Your task to perform on an android device: turn notification dots off Image 0: 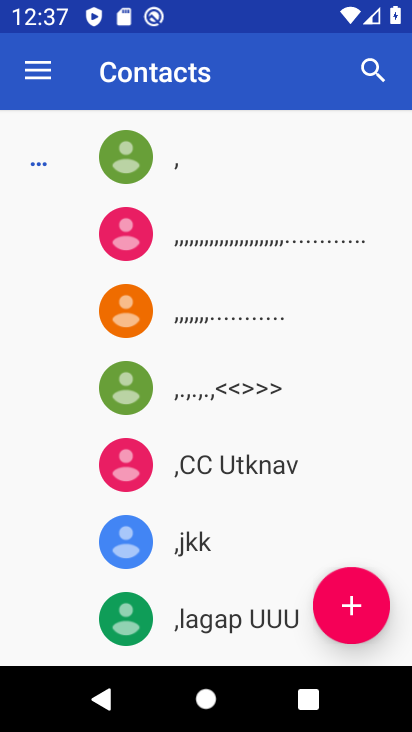
Step 0: press home button
Your task to perform on an android device: turn notification dots off Image 1: 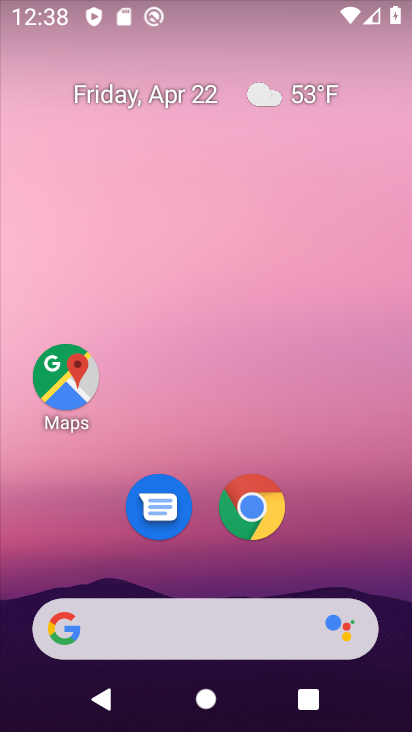
Step 1: drag from (260, 593) to (302, 264)
Your task to perform on an android device: turn notification dots off Image 2: 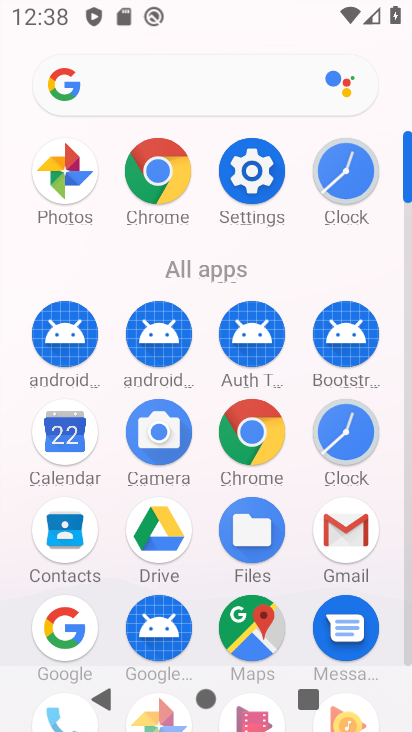
Step 2: click (251, 174)
Your task to perform on an android device: turn notification dots off Image 3: 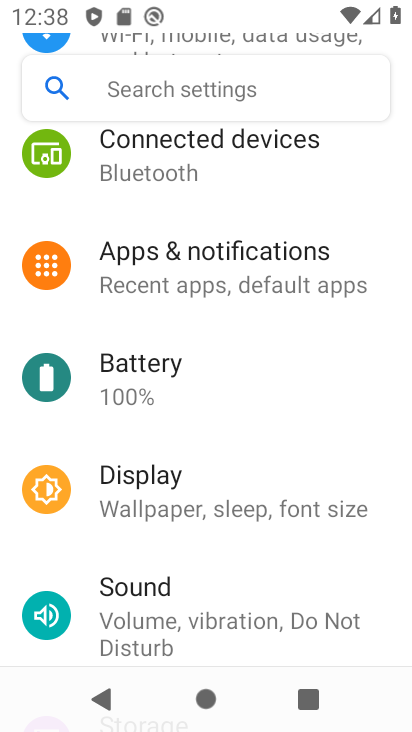
Step 3: click (255, 264)
Your task to perform on an android device: turn notification dots off Image 4: 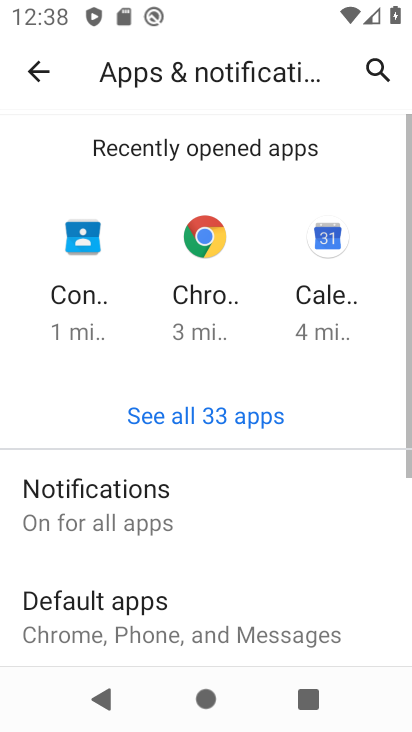
Step 4: click (165, 516)
Your task to perform on an android device: turn notification dots off Image 5: 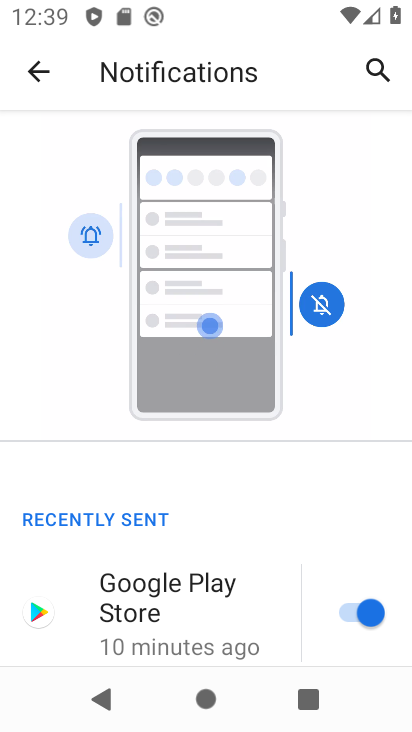
Step 5: drag from (188, 631) to (243, 254)
Your task to perform on an android device: turn notification dots off Image 6: 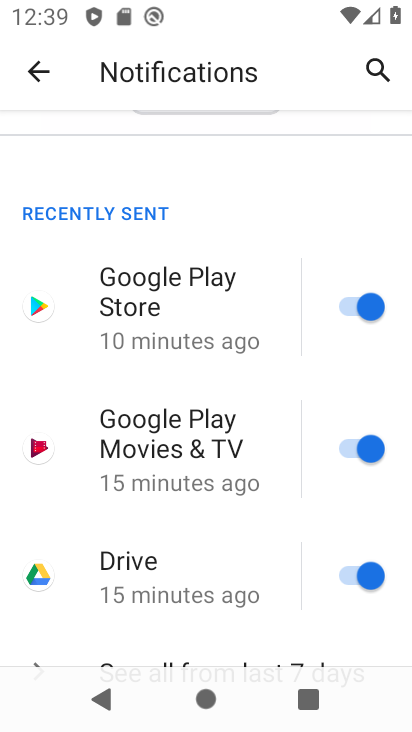
Step 6: drag from (233, 527) to (247, 216)
Your task to perform on an android device: turn notification dots off Image 7: 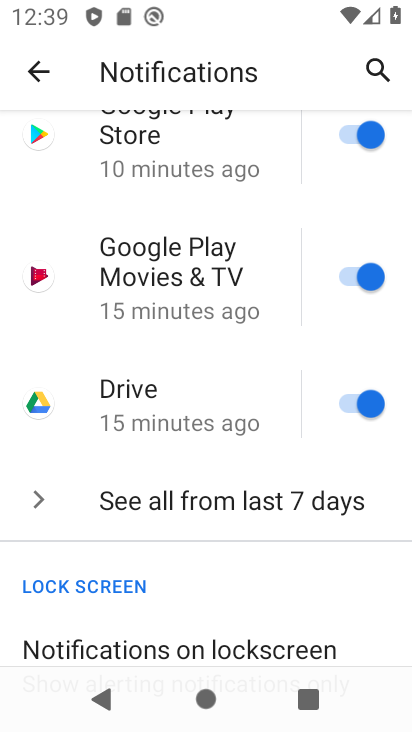
Step 7: drag from (215, 589) to (240, 186)
Your task to perform on an android device: turn notification dots off Image 8: 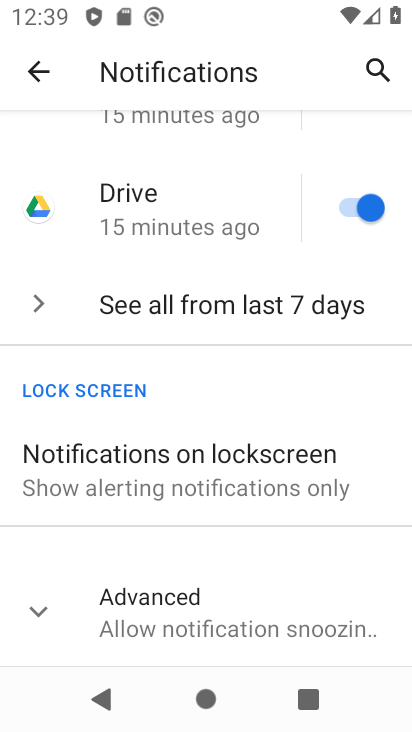
Step 8: click (214, 616)
Your task to perform on an android device: turn notification dots off Image 9: 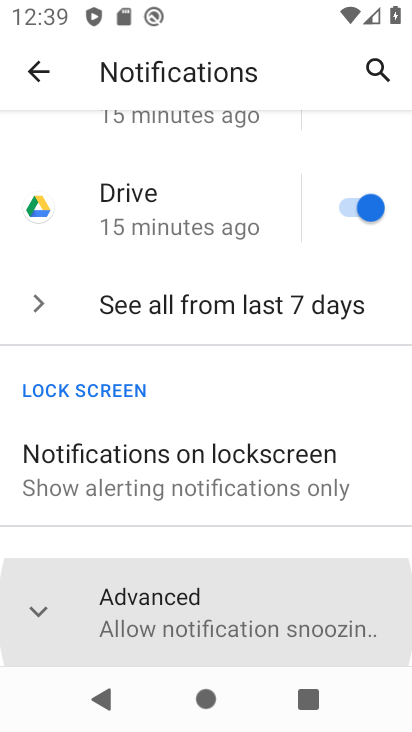
Step 9: drag from (203, 593) to (269, 166)
Your task to perform on an android device: turn notification dots off Image 10: 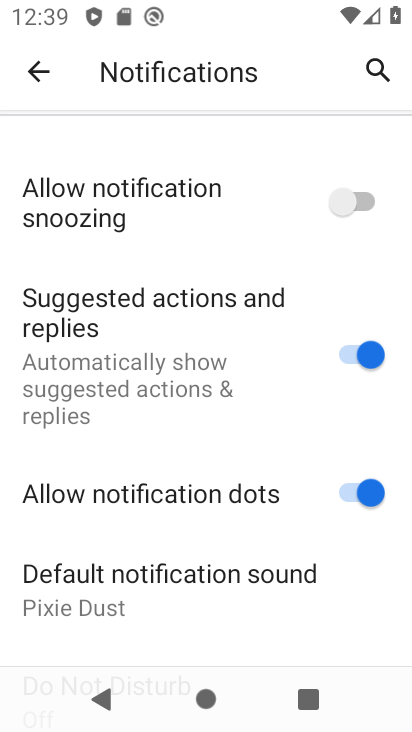
Step 10: click (357, 493)
Your task to perform on an android device: turn notification dots off Image 11: 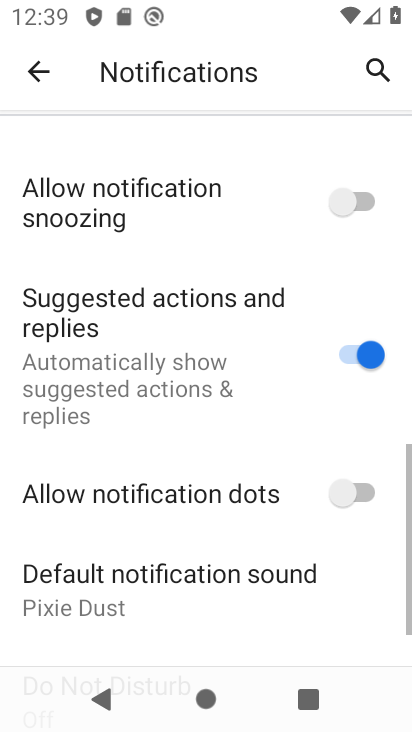
Step 11: task complete